Your task to perform on an android device: Open Wikipedia Image 0: 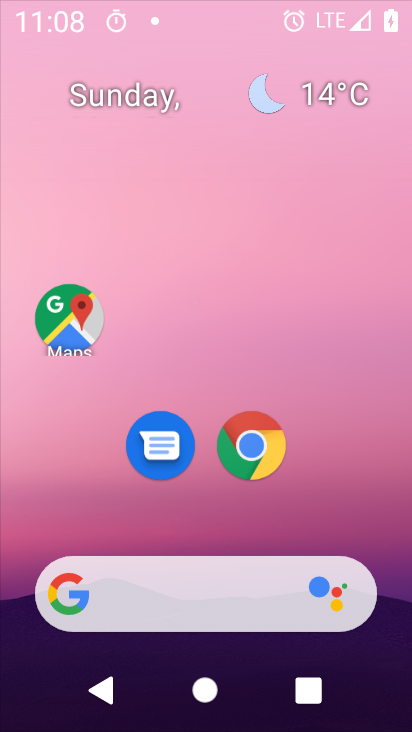
Step 0: click (258, 165)
Your task to perform on an android device: Open Wikipedia Image 1: 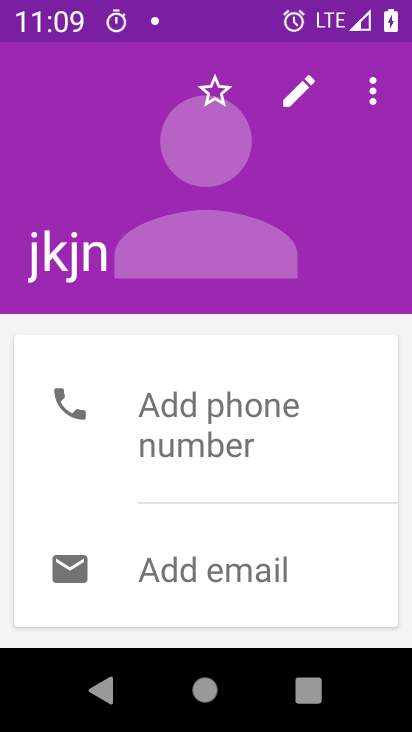
Step 1: drag from (255, 563) to (334, 251)
Your task to perform on an android device: Open Wikipedia Image 2: 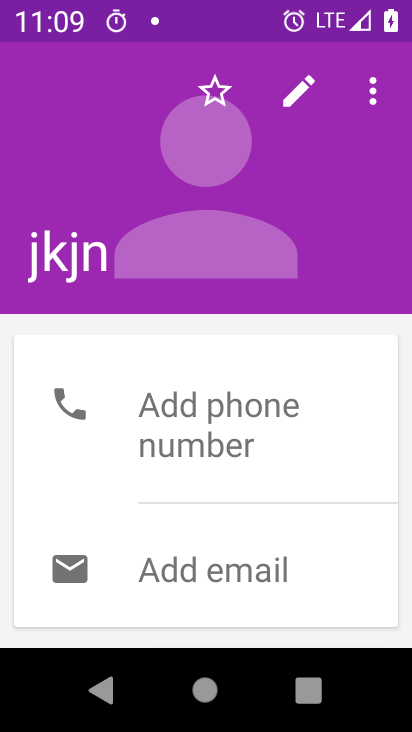
Step 2: press home button
Your task to perform on an android device: Open Wikipedia Image 3: 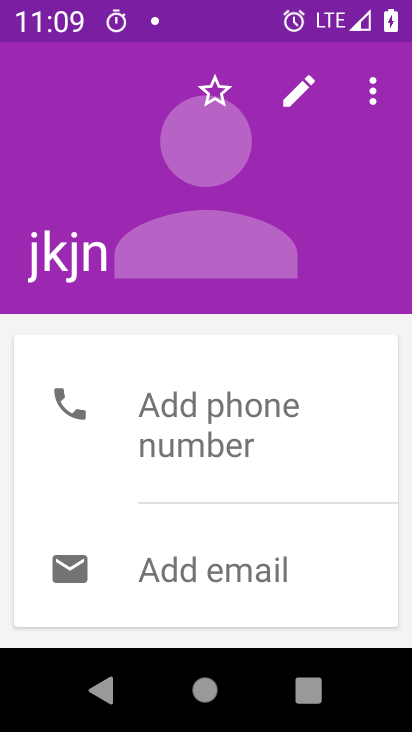
Step 3: drag from (261, 382) to (123, 19)
Your task to perform on an android device: Open Wikipedia Image 4: 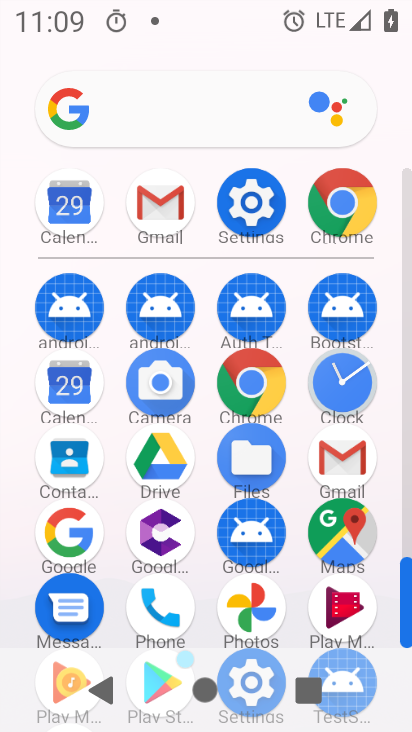
Step 4: click (149, 107)
Your task to perform on an android device: Open Wikipedia Image 5: 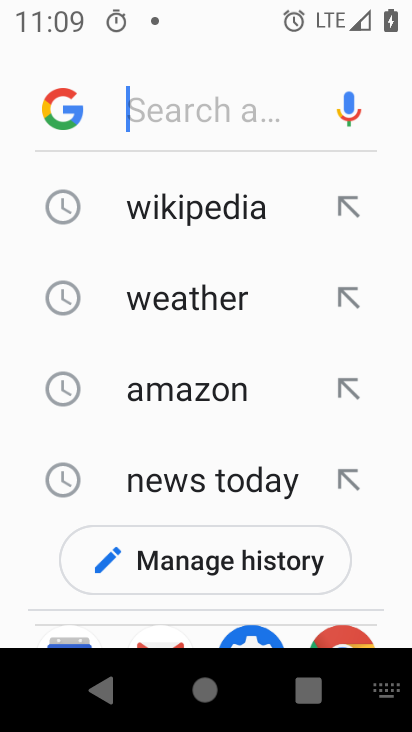
Step 5: click (169, 207)
Your task to perform on an android device: Open Wikipedia Image 6: 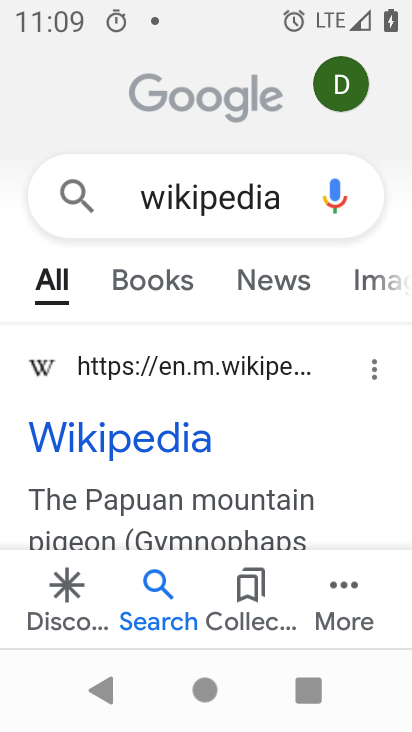
Step 6: drag from (236, 525) to (238, 192)
Your task to perform on an android device: Open Wikipedia Image 7: 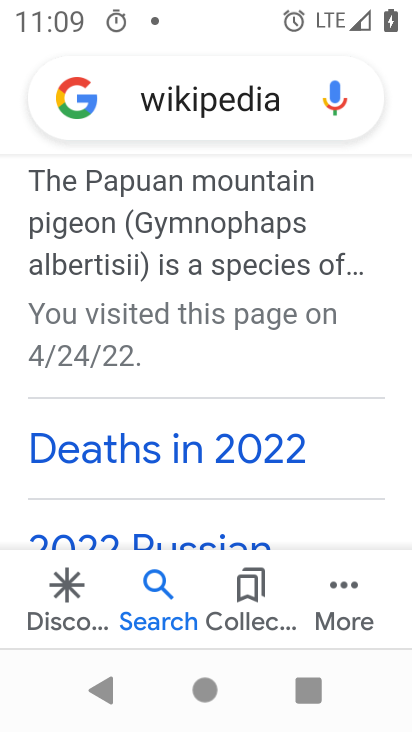
Step 7: drag from (216, 248) to (271, 591)
Your task to perform on an android device: Open Wikipedia Image 8: 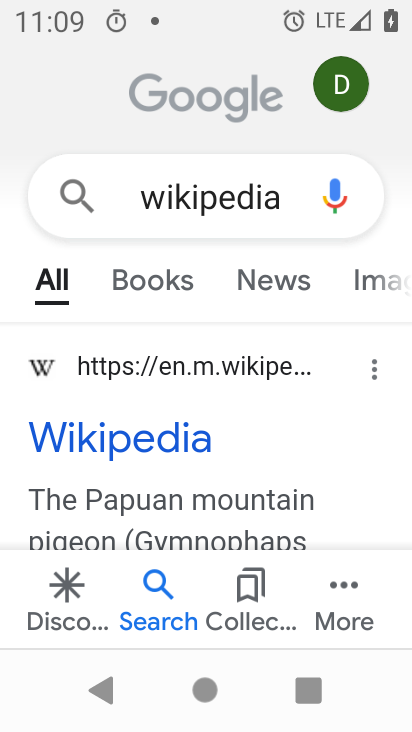
Step 8: click (67, 427)
Your task to perform on an android device: Open Wikipedia Image 9: 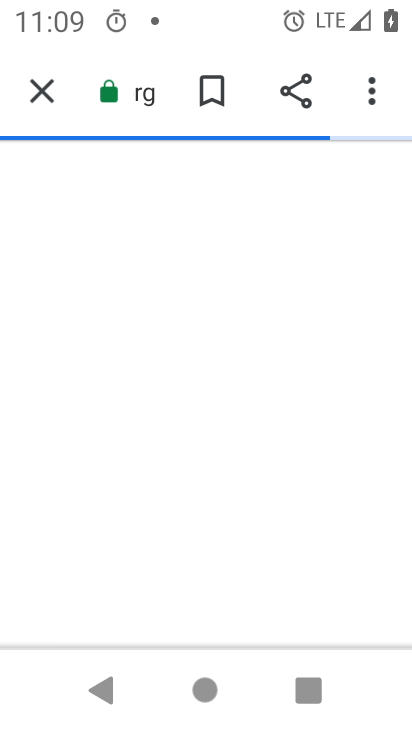
Step 9: task complete